Your task to perform on an android device: Open display settings Image 0: 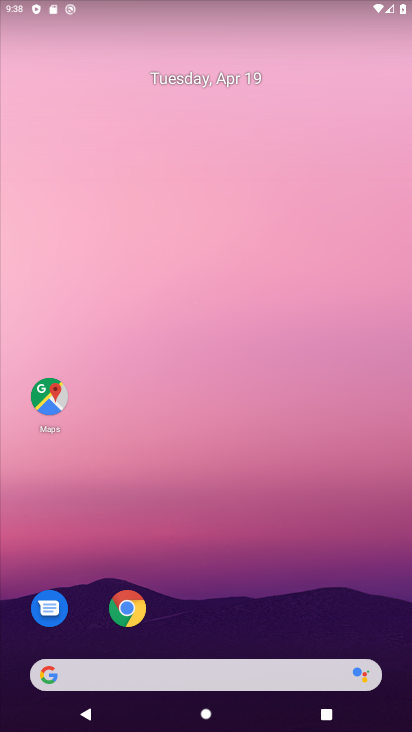
Step 0: drag from (206, 712) to (208, 48)
Your task to perform on an android device: Open display settings Image 1: 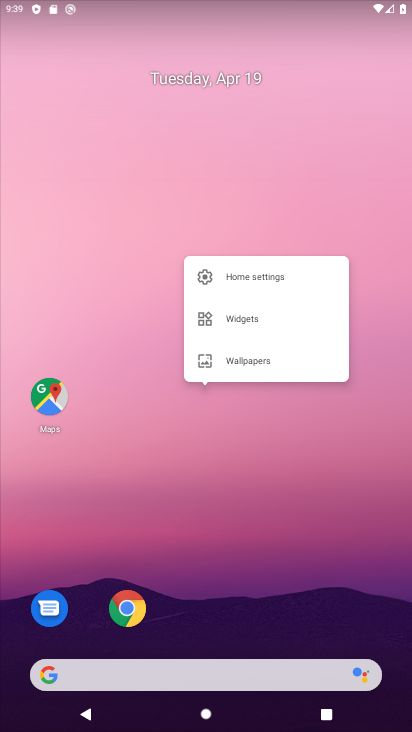
Step 1: click (214, 153)
Your task to perform on an android device: Open display settings Image 2: 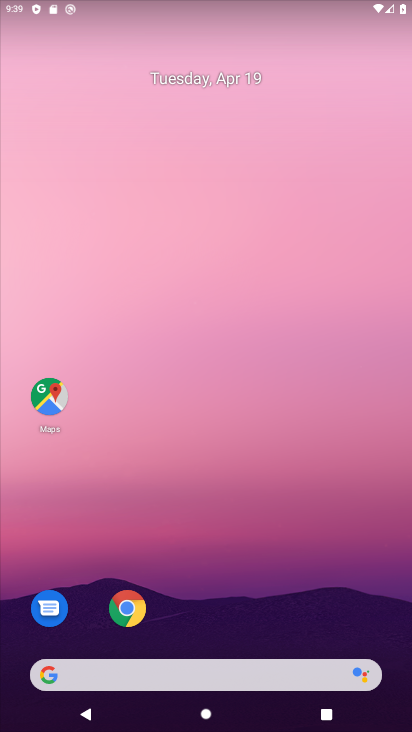
Step 2: drag from (210, 729) to (176, 100)
Your task to perform on an android device: Open display settings Image 3: 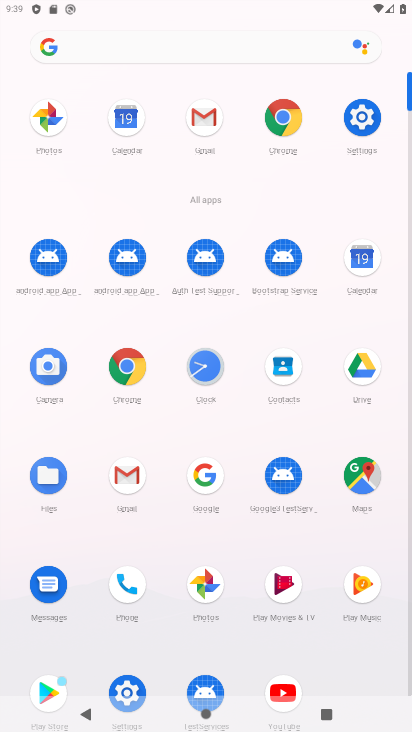
Step 3: click (355, 113)
Your task to perform on an android device: Open display settings Image 4: 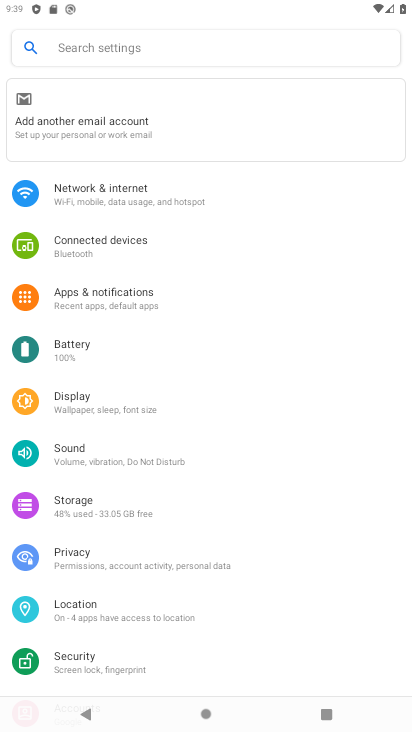
Step 4: click (60, 396)
Your task to perform on an android device: Open display settings Image 5: 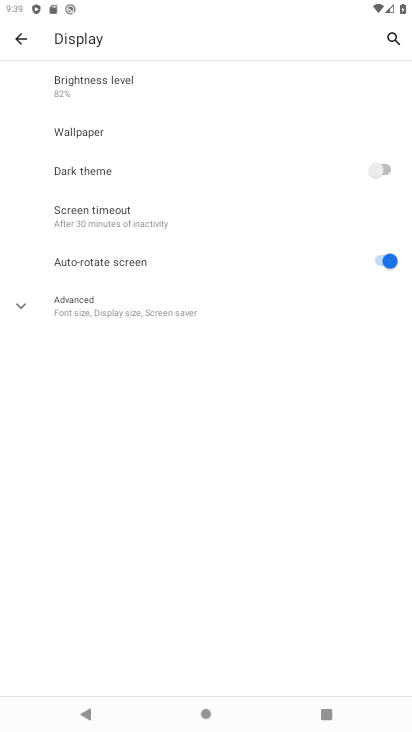
Step 5: task complete